Your task to perform on an android device: Search for seafood restaurants on Google Maps Image 0: 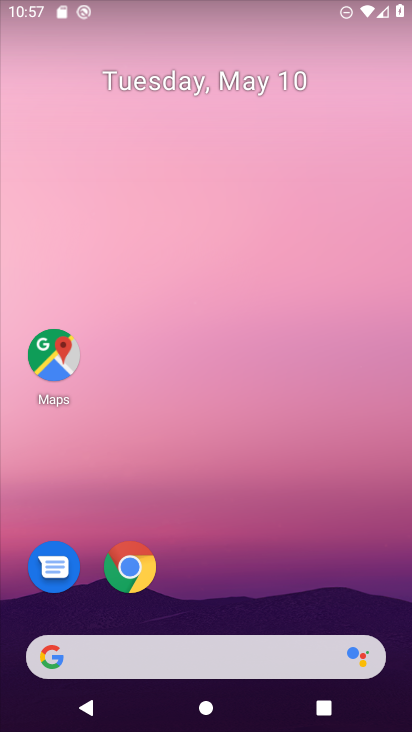
Step 0: click (30, 327)
Your task to perform on an android device: Search for seafood restaurants on Google Maps Image 1: 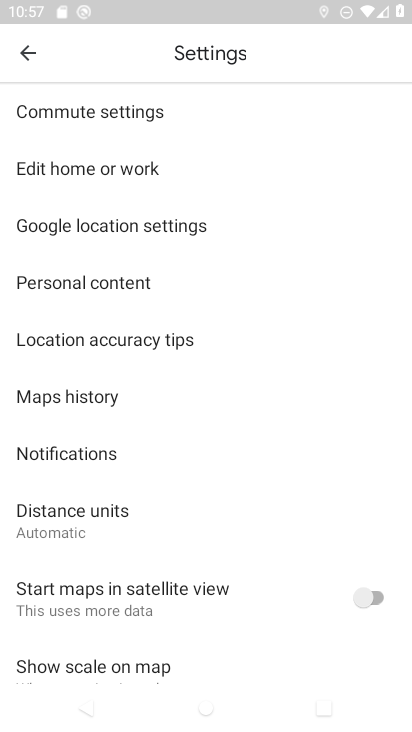
Step 1: press back button
Your task to perform on an android device: Search for seafood restaurants on Google Maps Image 2: 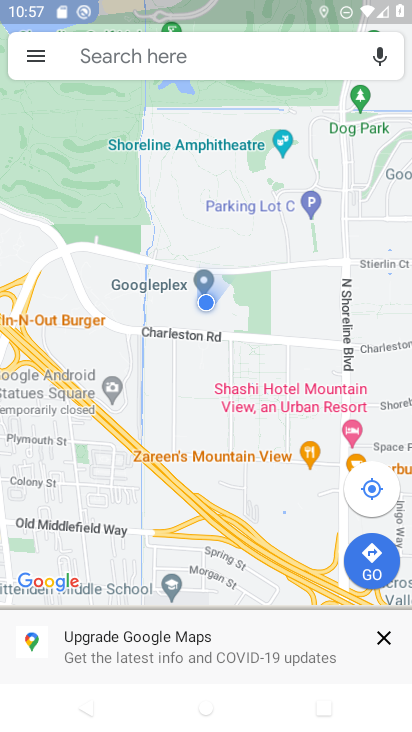
Step 2: click (81, 41)
Your task to perform on an android device: Search for seafood restaurants on Google Maps Image 3: 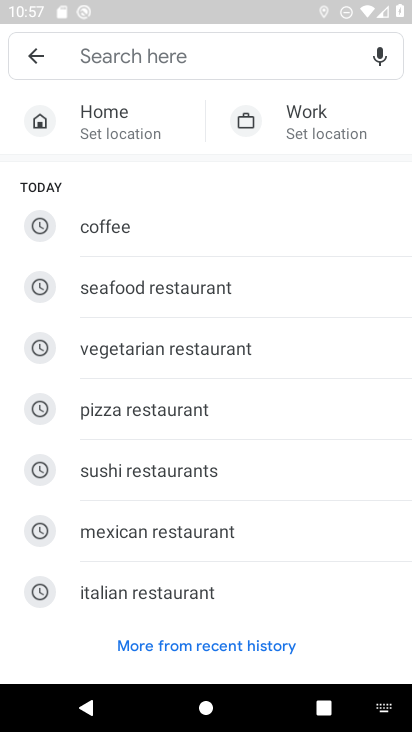
Step 3: click (224, 286)
Your task to perform on an android device: Search for seafood restaurants on Google Maps Image 4: 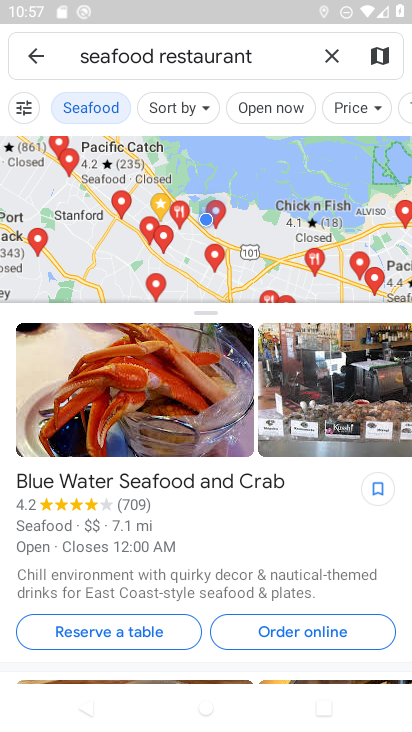
Step 4: task complete